Your task to perform on an android device: delete a single message in the gmail app Image 0: 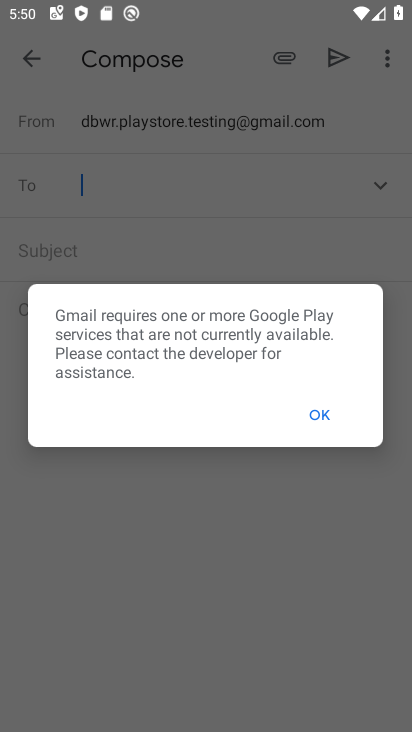
Step 0: press home button
Your task to perform on an android device: delete a single message in the gmail app Image 1: 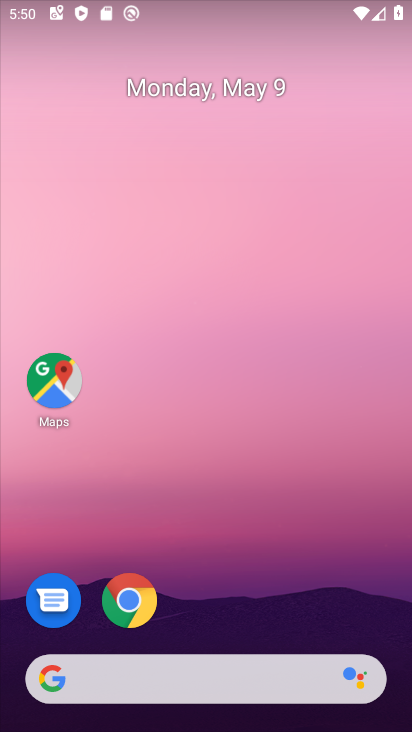
Step 1: drag from (241, 566) to (337, 4)
Your task to perform on an android device: delete a single message in the gmail app Image 2: 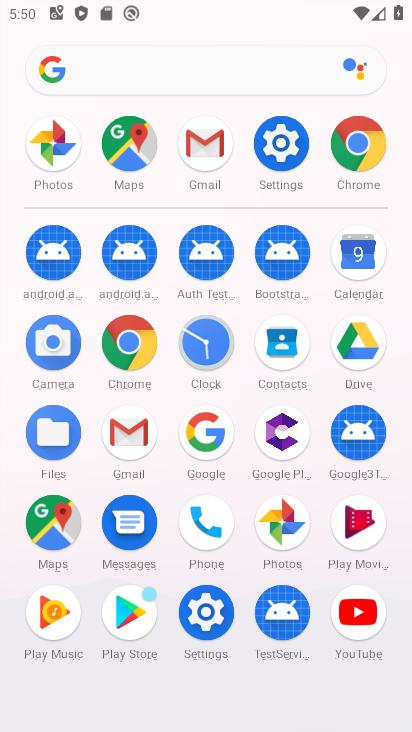
Step 2: click (142, 441)
Your task to perform on an android device: delete a single message in the gmail app Image 3: 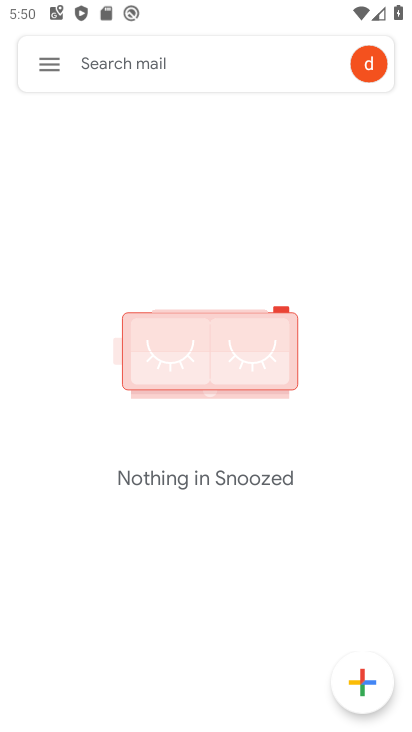
Step 3: click (34, 66)
Your task to perform on an android device: delete a single message in the gmail app Image 4: 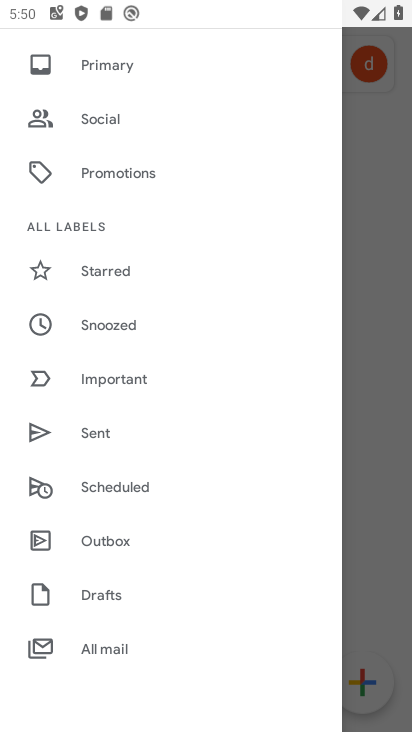
Step 4: click (111, 652)
Your task to perform on an android device: delete a single message in the gmail app Image 5: 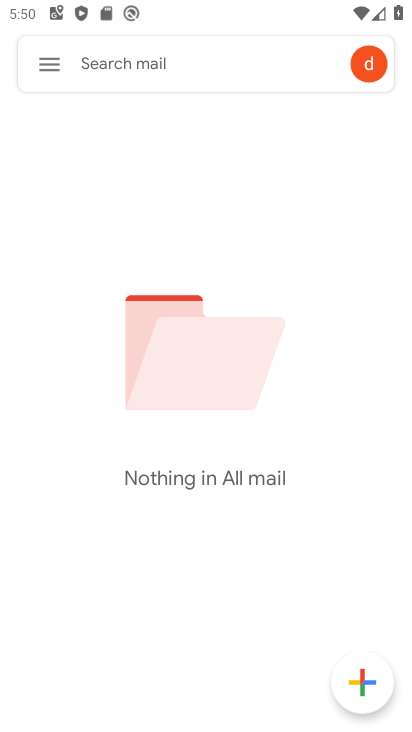
Step 5: task complete